Your task to perform on an android device: open wifi settings Image 0: 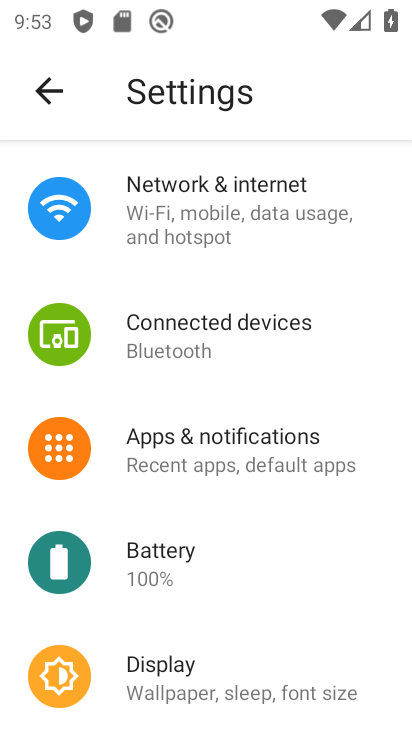
Step 0: click (192, 204)
Your task to perform on an android device: open wifi settings Image 1: 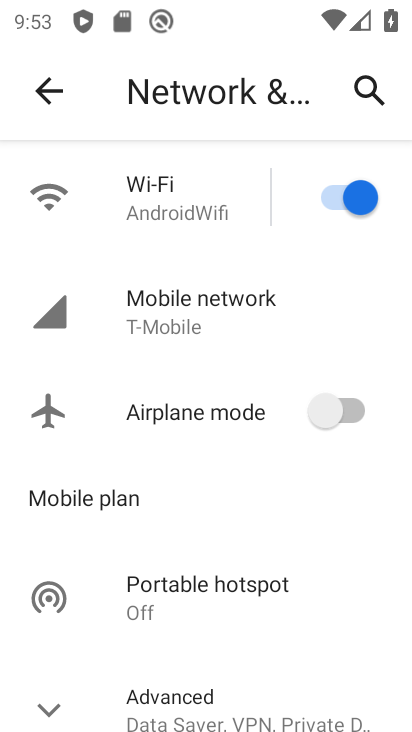
Step 1: click (167, 197)
Your task to perform on an android device: open wifi settings Image 2: 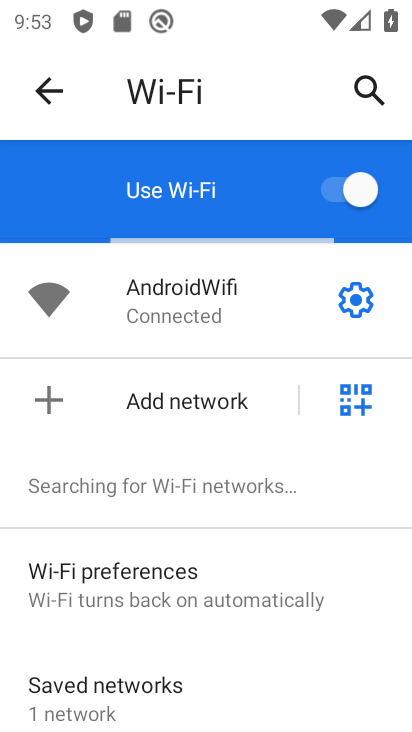
Step 2: task complete